Your task to perform on an android device: Is it going to rain tomorrow? Image 0: 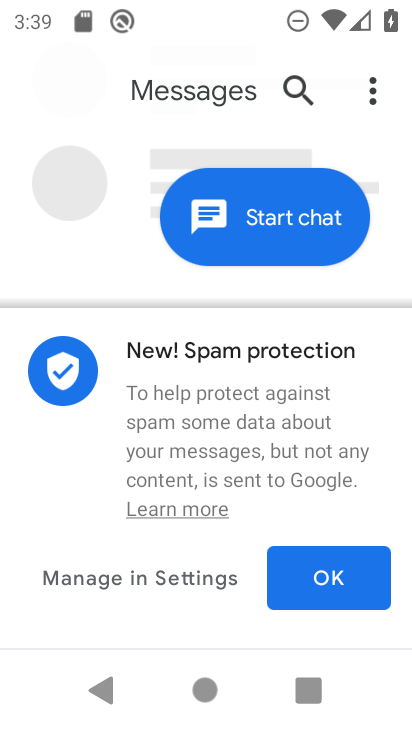
Step 0: press home button
Your task to perform on an android device: Is it going to rain tomorrow? Image 1: 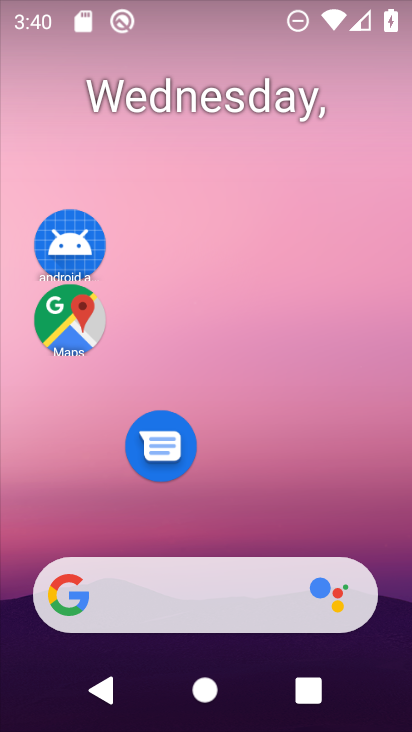
Step 1: click (233, 602)
Your task to perform on an android device: Is it going to rain tomorrow? Image 2: 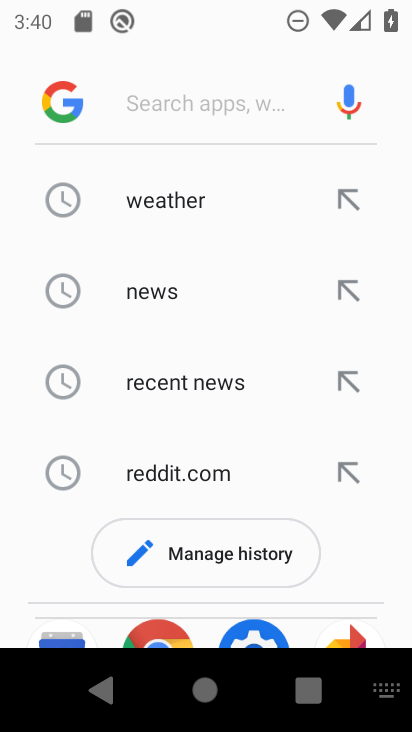
Step 2: click (204, 221)
Your task to perform on an android device: Is it going to rain tomorrow? Image 3: 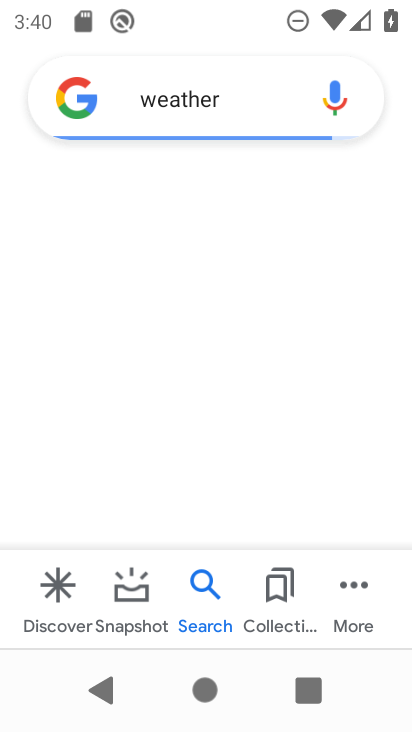
Step 3: task complete